Your task to perform on an android device: What is the news today? Image 0: 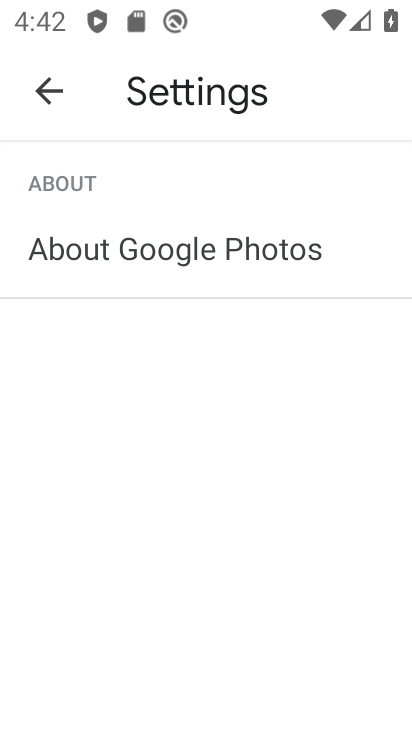
Step 0: press home button
Your task to perform on an android device: What is the news today? Image 1: 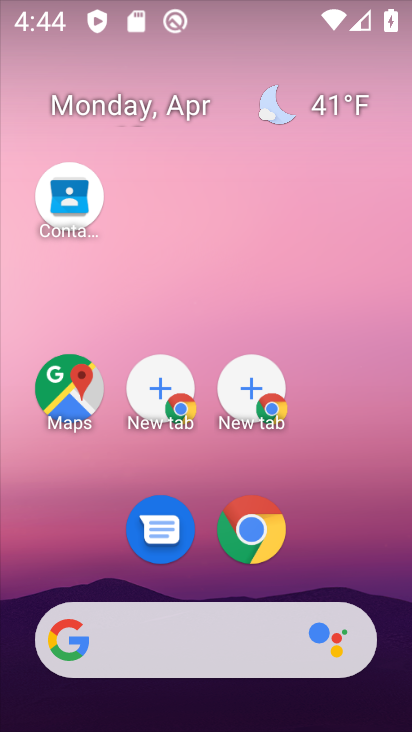
Step 1: click (196, 638)
Your task to perform on an android device: What is the news today? Image 2: 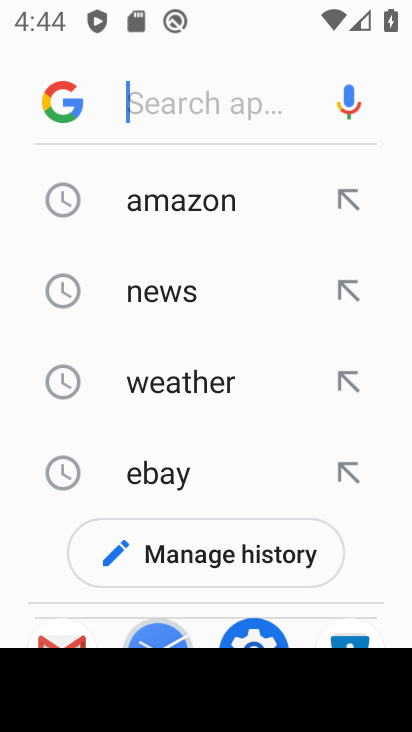
Step 2: click (168, 299)
Your task to perform on an android device: What is the news today? Image 3: 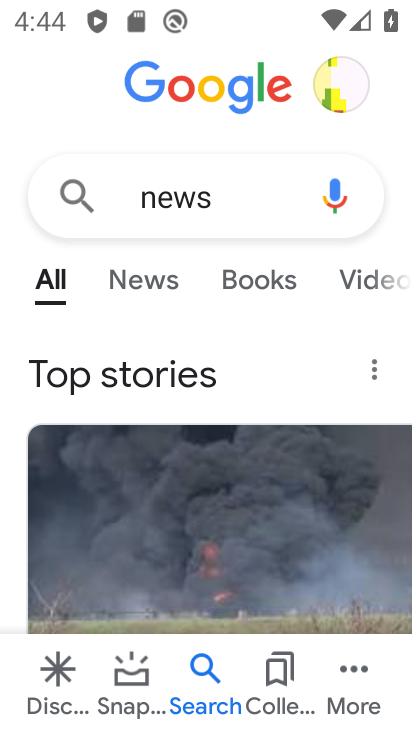
Step 3: click (225, 205)
Your task to perform on an android device: What is the news today? Image 4: 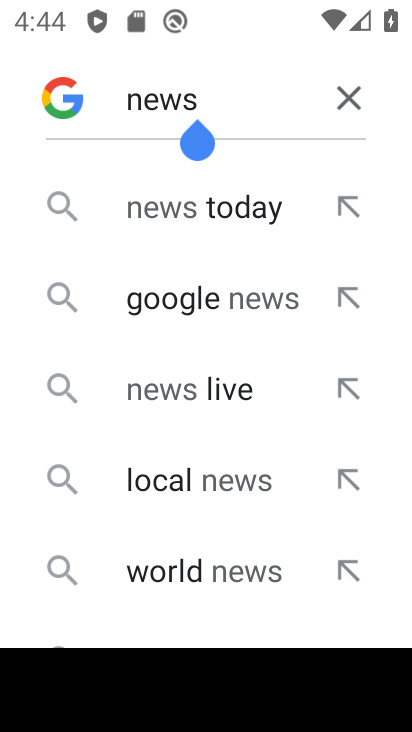
Step 4: click (224, 206)
Your task to perform on an android device: What is the news today? Image 5: 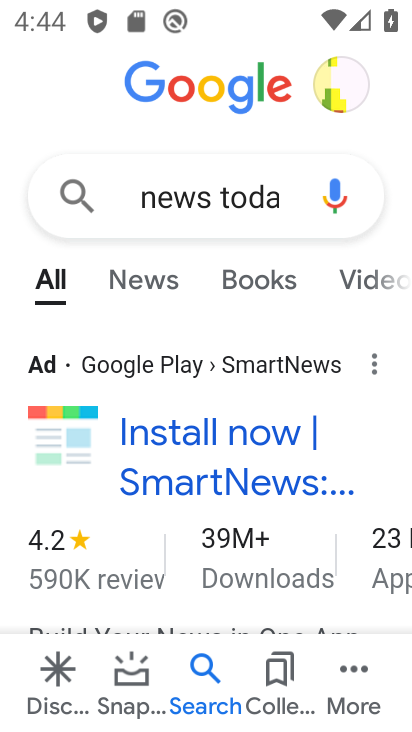
Step 5: task complete